Your task to perform on an android device: turn off data saver in the chrome app Image 0: 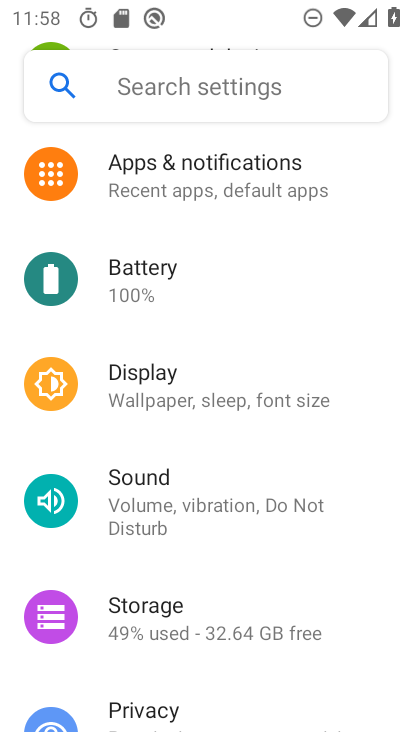
Step 0: press home button
Your task to perform on an android device: turn off data saver in the chrome app Image 1: 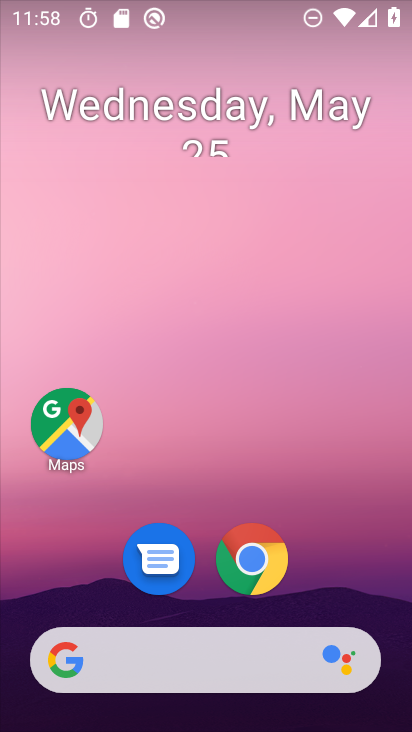
Step 1: drag from (372, 595) to (366, 199)
Your task to perform on an android device: turn off data saver in the chrome app Image 2: 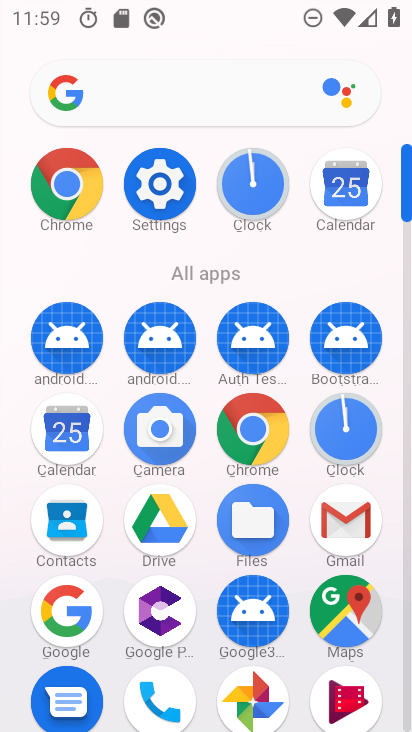
Step 2: click (233, 426)
Your task to perform on an android device: turn off data saver in the chrome app Image 3: 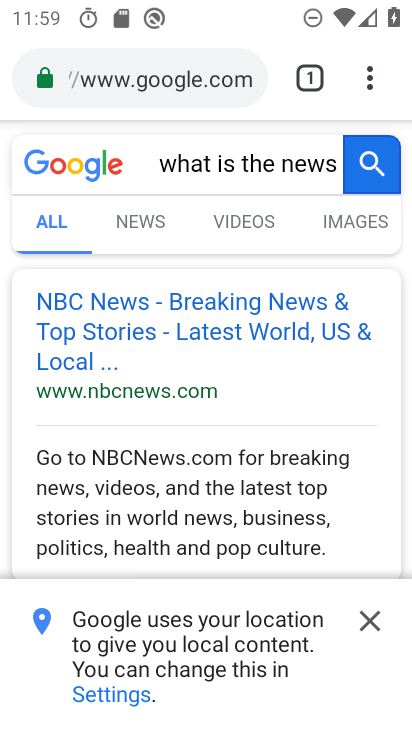
Step 3: drag from (382, 89) to (216, 602)
Your task to perform on an android device: turn off data saver in the chrome app Image 4: 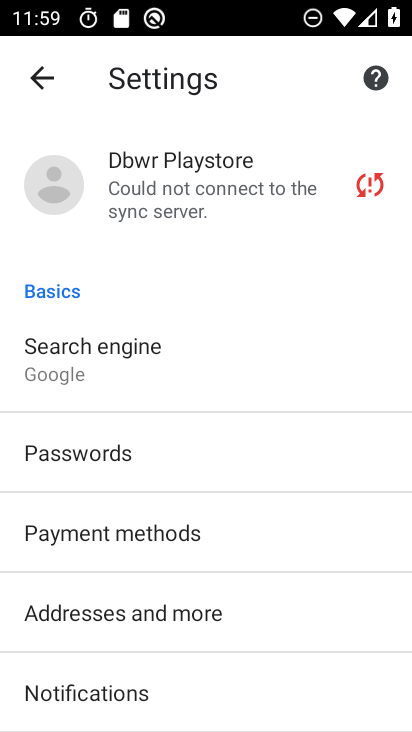
Step 4: drag from (233, 715) to (279, 390)
Your task to perform on an android device: turn off data saver in the chrome app Image 5: 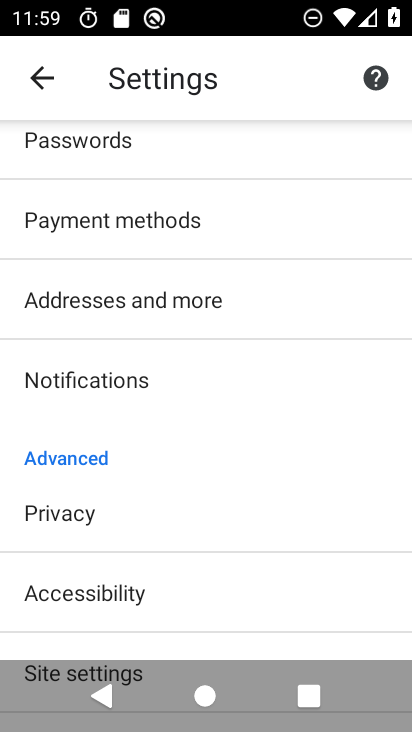
Step 5: drag from (230, 621) to (270, 324)
Your task to perform on an android device: turn off data saver in the chrome app Image 6: 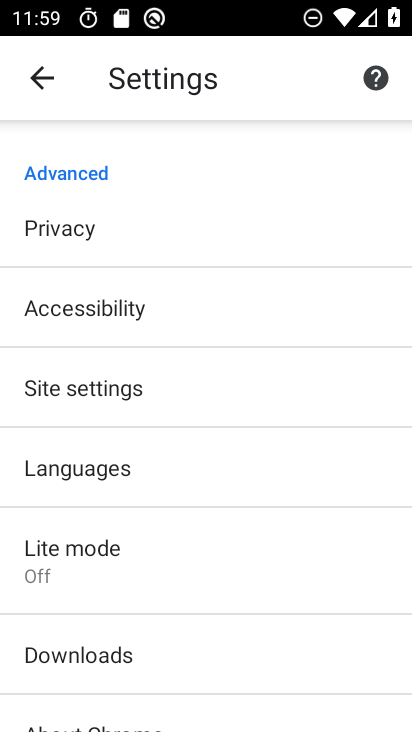
Step 6: click (190, 478)
Your task to perform on an android device: turn off data saver in the chrome app Image 7: 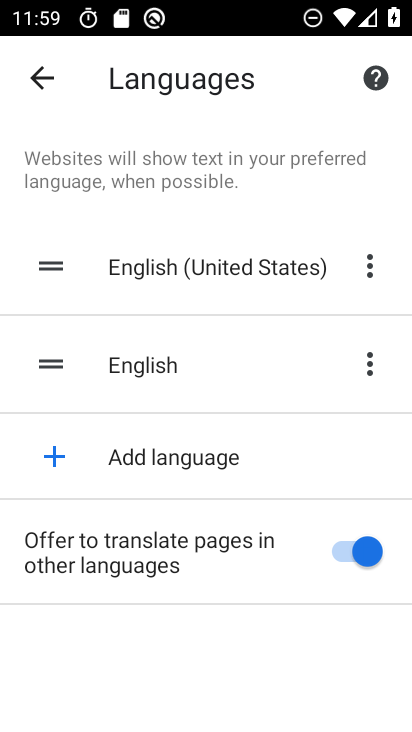
Step 7: click (47, 79)
Your task to perform on an android device: turn off data saver in the chrome app Image 8: 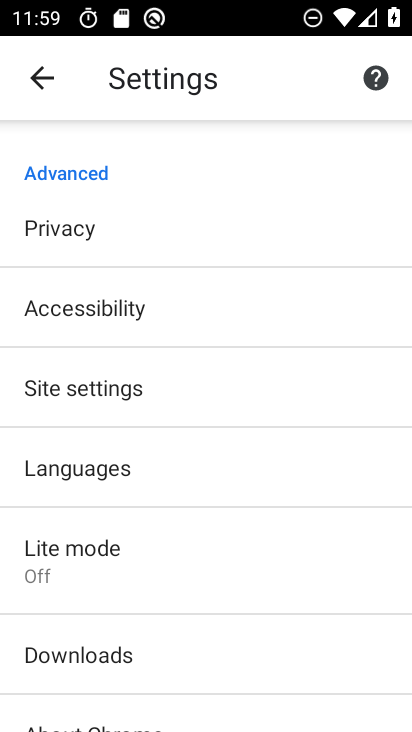
Step 8: click (193, 581)
Your task to perform on an android device: turn off data saver in the chrome app Image 9: 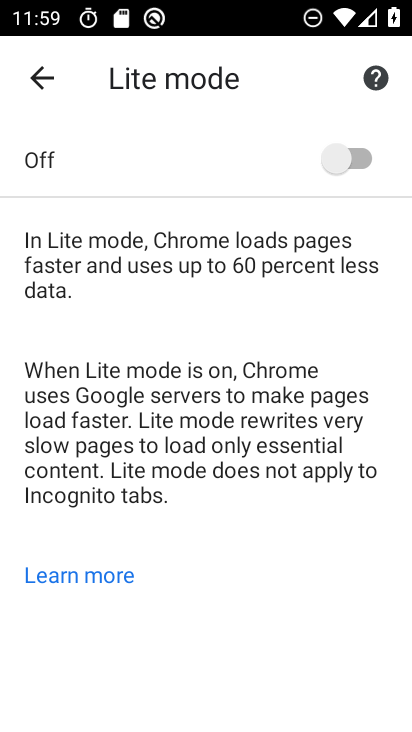
Step 9: task complete